Your task to perform on an android device: delete the emails in spam in the gmail app Image 0: 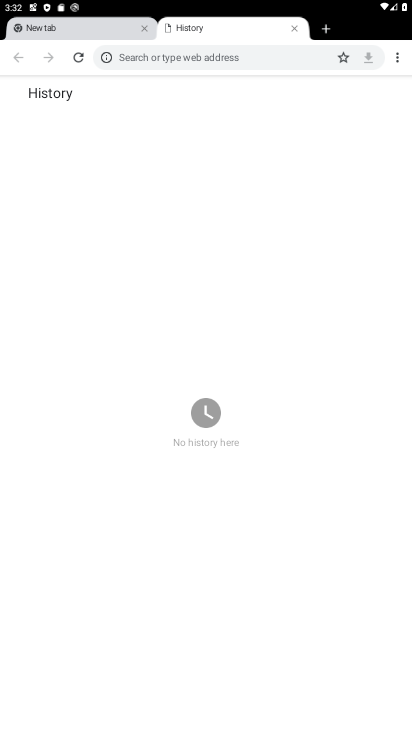
Step 0: press home button
Your task to perform on an android device: delete the emails in spam in the gmail app Image 1: 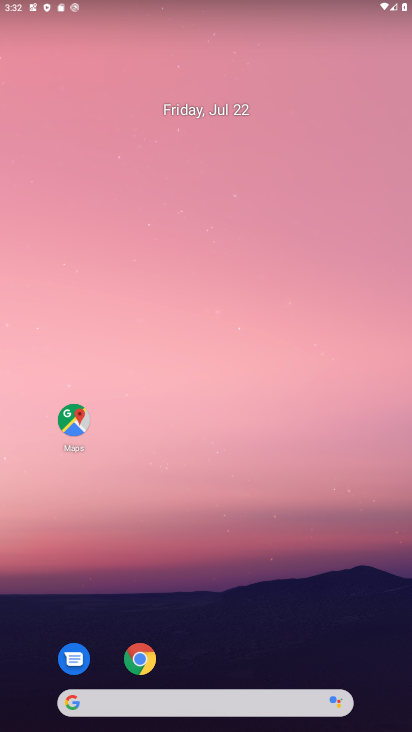
Step 1: drag from (188, 653) to (203, 155)
Your task to perform on an android device: delete the emails in spam in the gmail app Image 2: 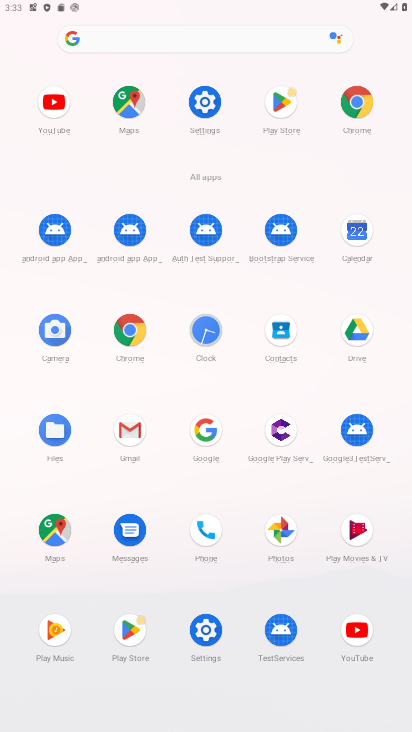
Step 2: click (128, 449)
Your task to perform on an android device: delete the emails in spam in the gmail app Image 3: 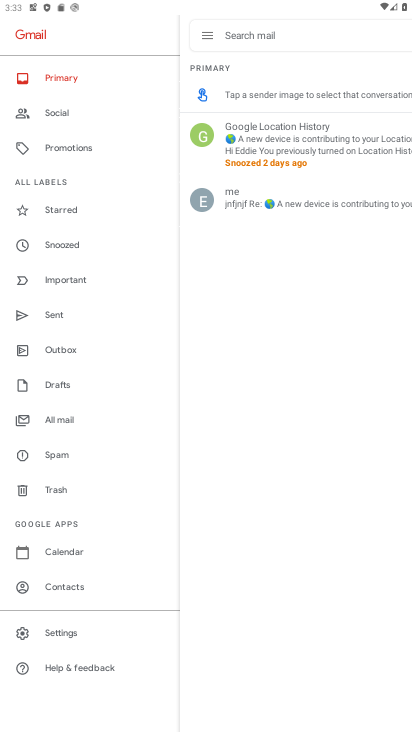
Step 3: click (33, 460)
Your task to perform on an android device: delete the emails in spam in the gmail app Image 4: 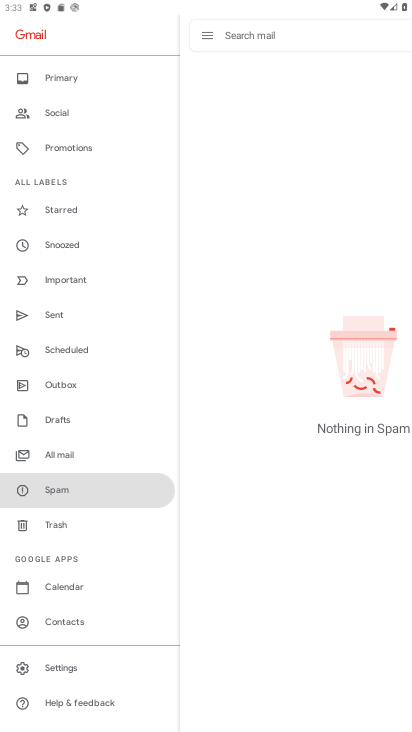
Step 4: task complete